Your task to perform on an android device: Open Google Maps and go to "Timeline" Image 0: 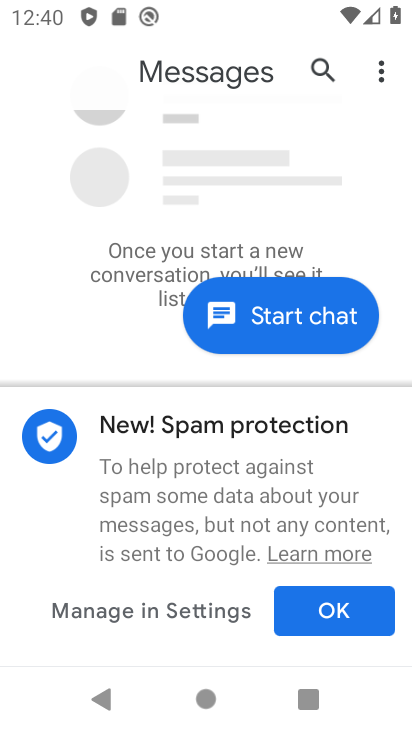
Step 0: press home button
Your task to perform on an android device: Open Google Maps and go to "Timeline" Image 1: 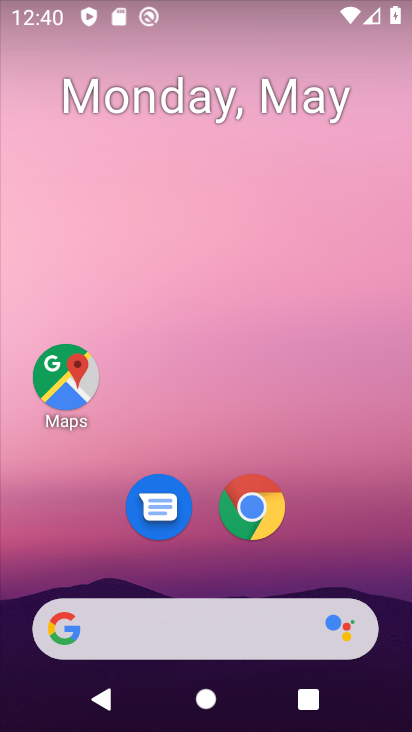
Step 1: drag from (229, 726) to (228, 11)
Your task to perform on an android device: Open Google Maps and go to "Timeline" Image 2: 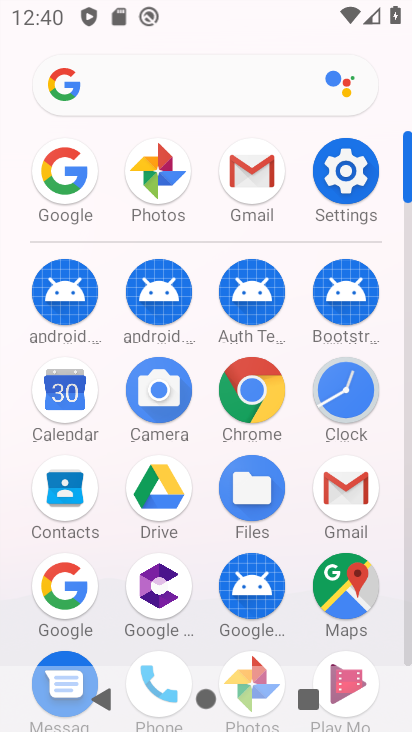
Step 2: click (346, 590)
Your task to perform on an android device: Open Google Maps and go to "Timeline" Image 3: 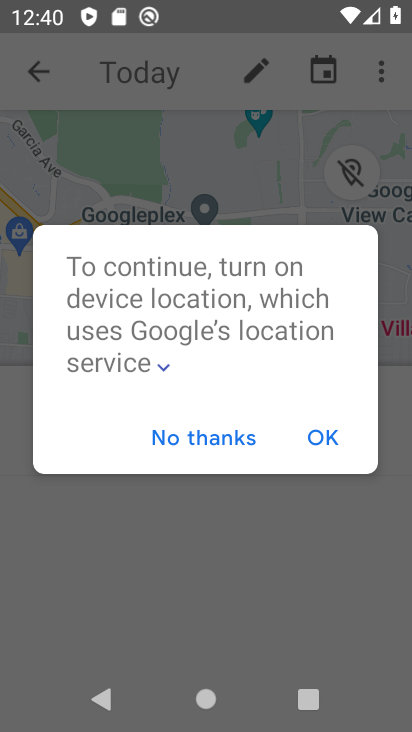
Step 3: click (227, 430)
Your task to perform on an android device: Open Google Maps and go to "Timeline" Image 4: 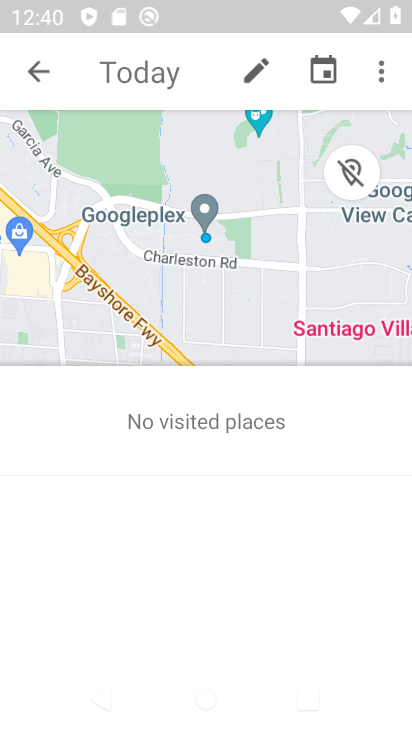
Step 4: task complete